Your task to perform on an android device: delete the emails in spam in the gmail app Image 0: 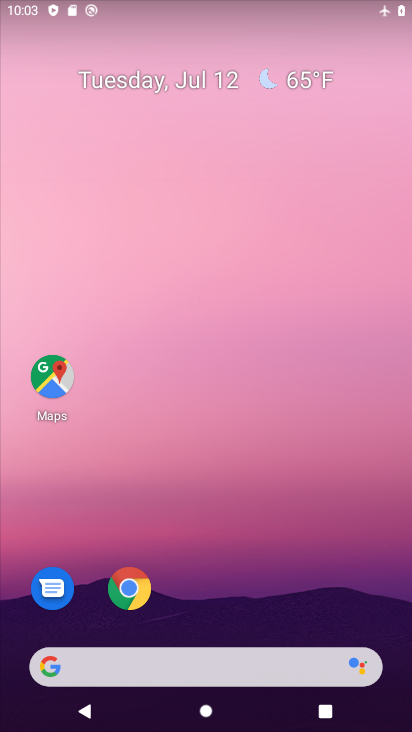
Step 0: drag from (48, 715) to (225, 181)
Your task to perform on an android device: delete the emails in spam in the gmail app Image 1: 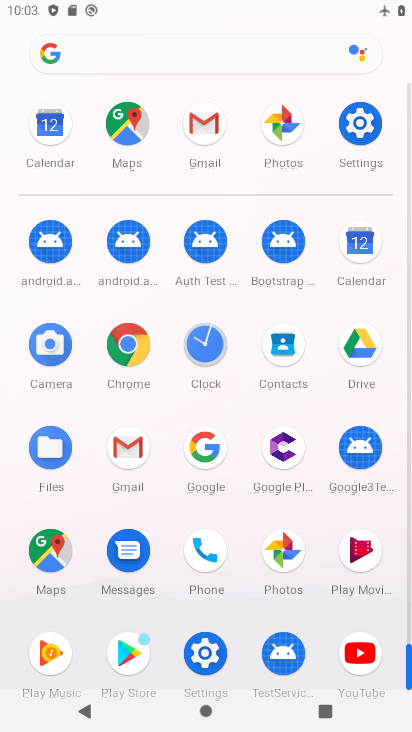
Step 1: click (121, 456)
Your task to perform on an android device: delete the emails in spam in the gmail app Image 2: 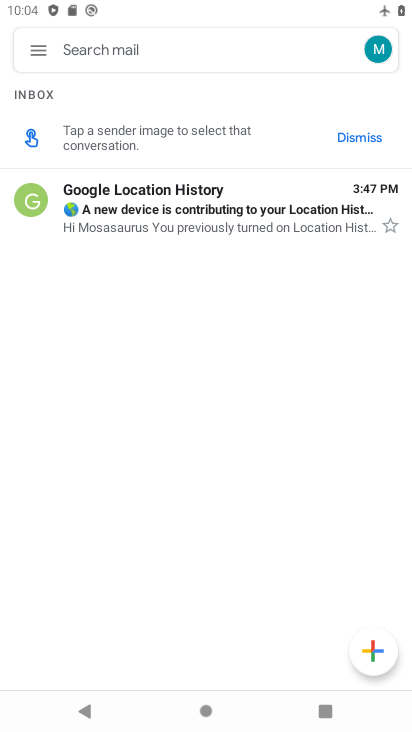
Step 2: click (32, 46)
Your task to perform on an android device: delete the emails in spam in the gmail app Image 3: 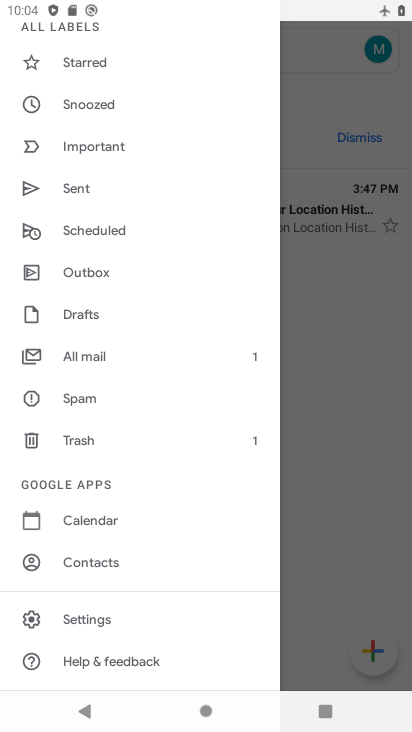
Step 3: click (76, 410)
Your task to perform on an android device: delete the emails in spam in the gmail app Image 4: 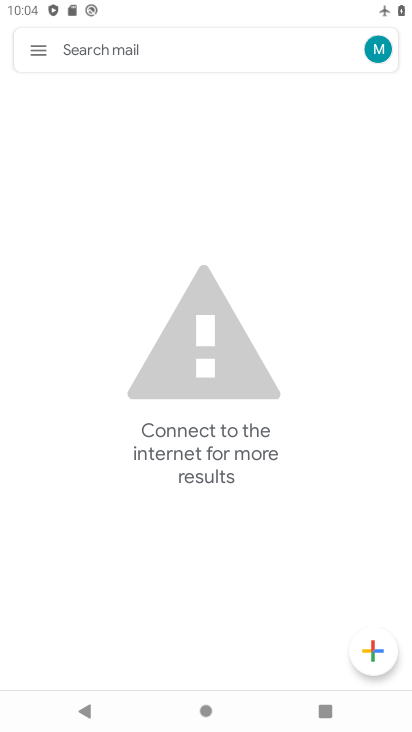
Step 4: task complete